Your task to perform on an android device: turn vacation reply on in the gmail app Image 0: 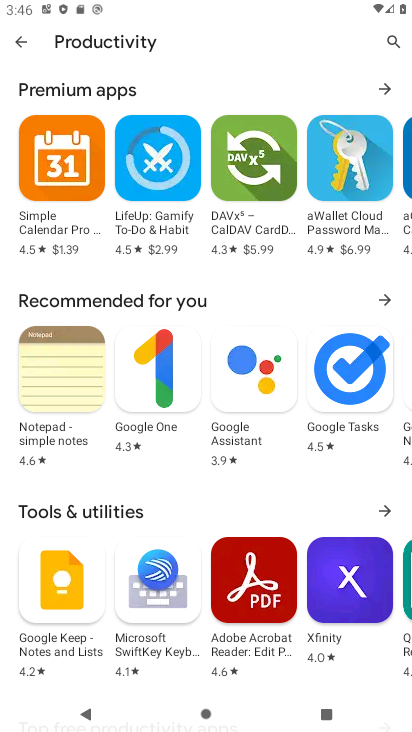
Step 0: press home button
Your task to perform on an android device: turn vacation reply on in the gmail app Image 1: 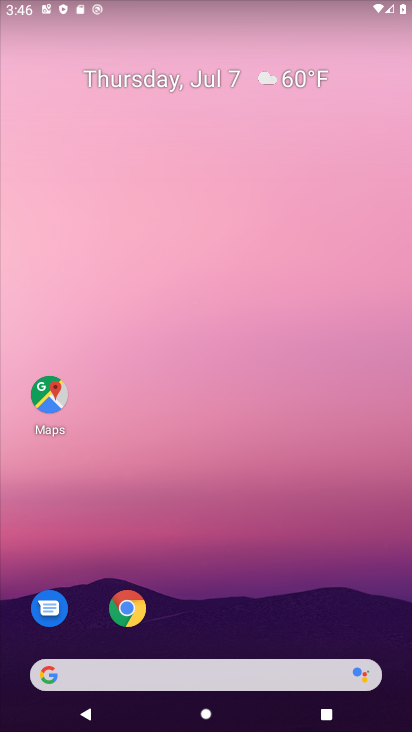
Step 1: drag from (218, 676) to (319, 110)
Your task to perform on an android device: turn vacation reply on in the gmail app Image 2: 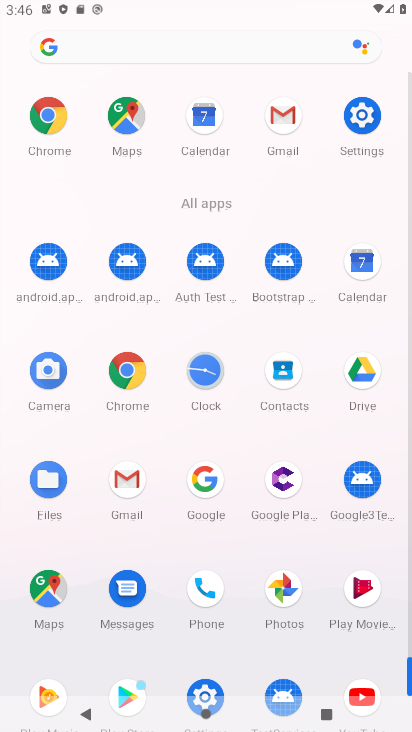
Step 2: click (292, 116)
Your task to perform on an android device: turn vacation reply on in the gmail app Image 3: 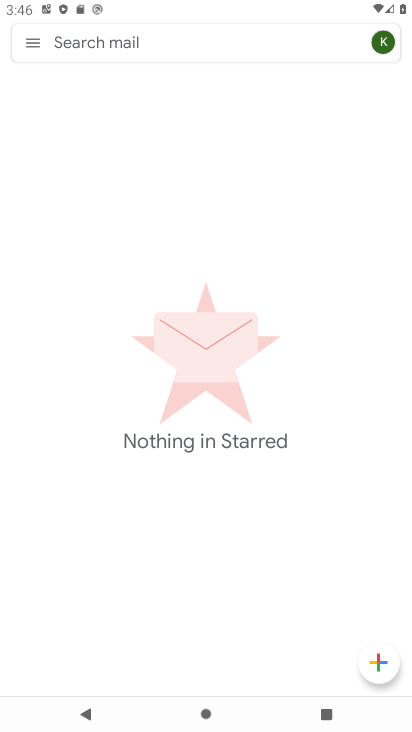
Step 3: click (23, 45)
Your task to perform on an android device: turn vacation reply on in the gmail app Image 4: 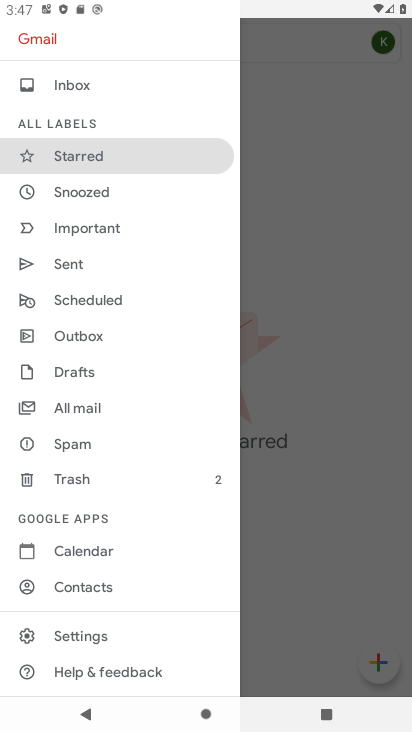
Step 4: click (86, 634)
Your task to perform on an android device: turn vacation reply on in the gmail app Image 5: 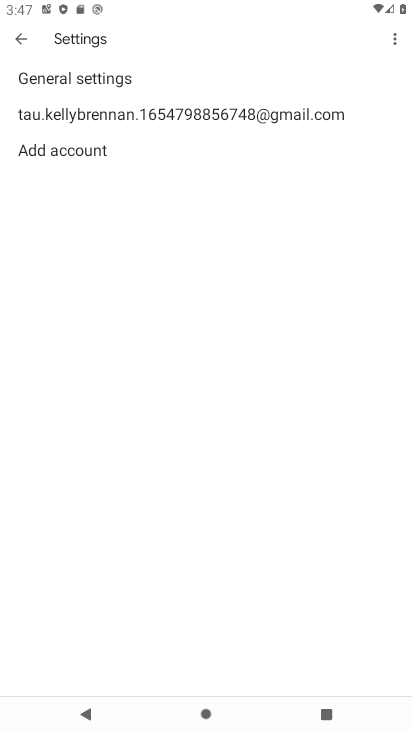
Step 5: click (186, 126)
Your task to perform on an android device: turn vacation reply on in the gmail app Image 6: 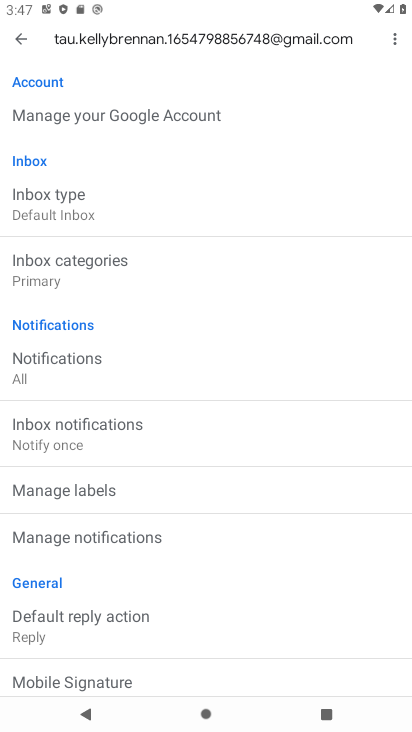
Step 6: drag from (131, 571) to (234, 220)
Your task to perform on an android device: turn vacation reply on in the gmail app Image 7: 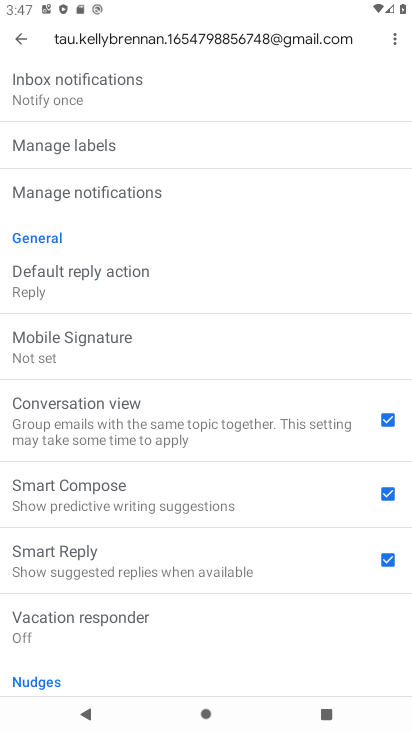
Step 7: click (121, 619)
Your task to perform on an android device: turn vacation reply on in the gmail app Image 8: 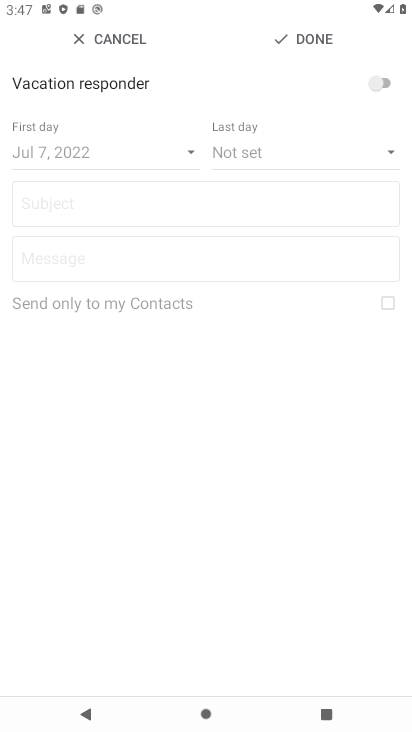
Step 8: click (375, 82)
Your task to perform on an android device: turn vacation reply on in the gmail app Image 9: 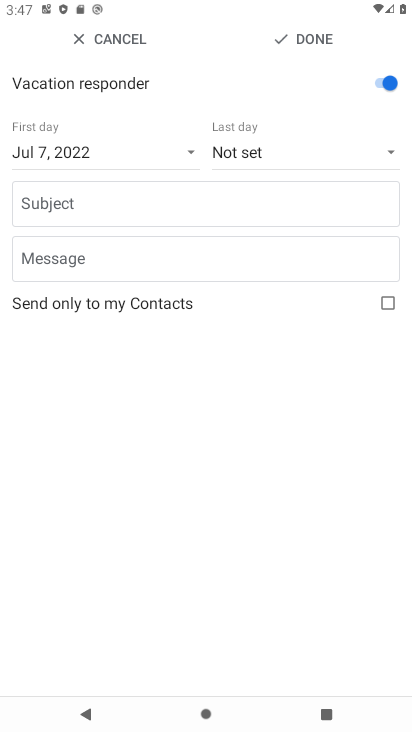
Step 9: task complete